Your task to perform on an android device: turn off javascript in the chrome app Image 0: 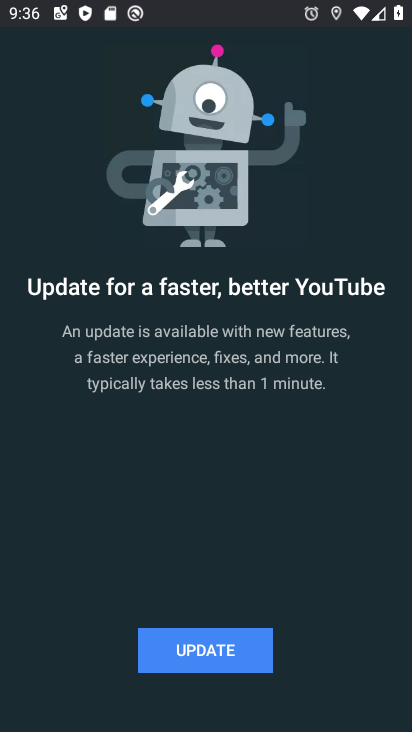
Step 0: press home button
Your task to perform on an android device: turn off javascript in the chrome app Image 1: 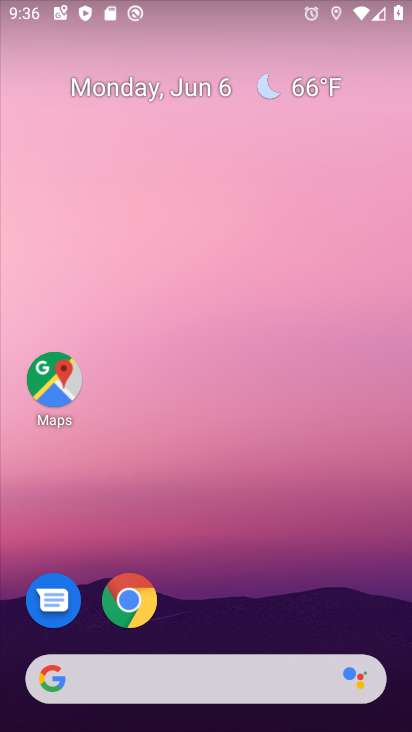
Step 1: click (130, 602)
Your task to perform on an android device: turn off javascript in the chrome app Image 2: 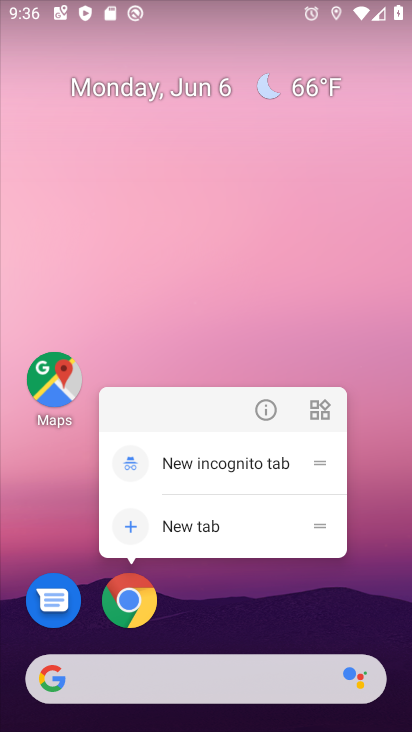
Step 2: click (130, 602)
Your task to perform on an android device: turn off javascript in the chrome app Image 3: 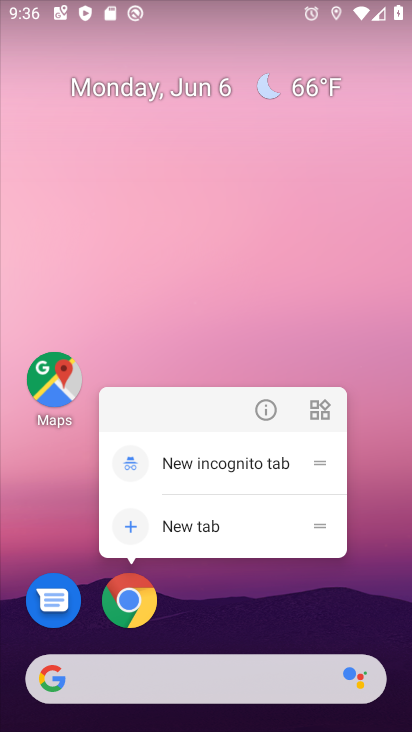
Step 3: click (130, 602)
Your task to perform on an android device: turn off javascript in the chrome app Image 4: 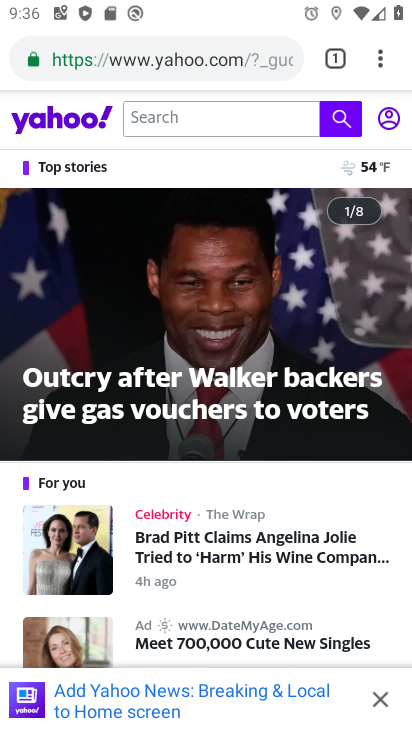
Step 4: click (386, 65)
Your task to perform on an android device: turn off javascript in the chrome app Image 5: 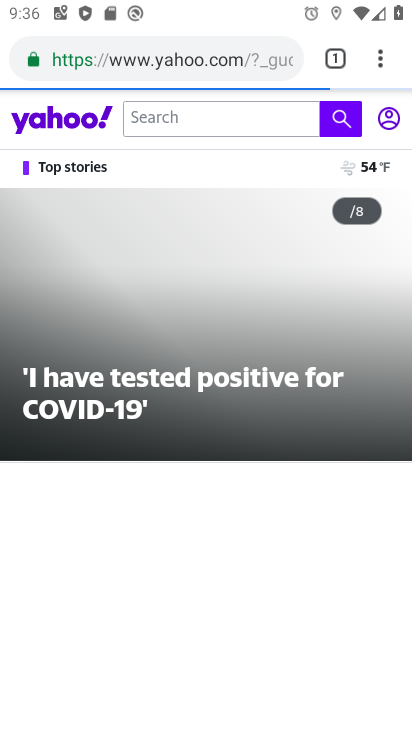
Step 5: click (378, 51)
Your task to perform on an android device: turn off javascript in the chrome app Image 6: 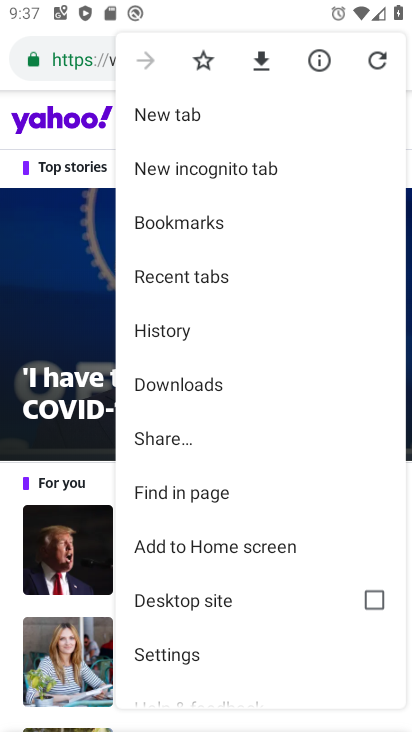
Step 6: click (186, 657)
Your task to perform on an android device: turn off javascript in the chrome app Image 7: 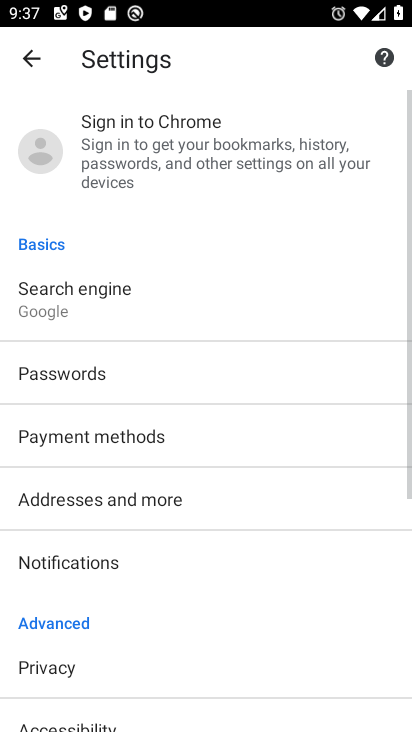
Step 7: drag from (3, 491) to (83, 253)
Your task to perform on an android device: turn off javascript in the chrome app Image 8: 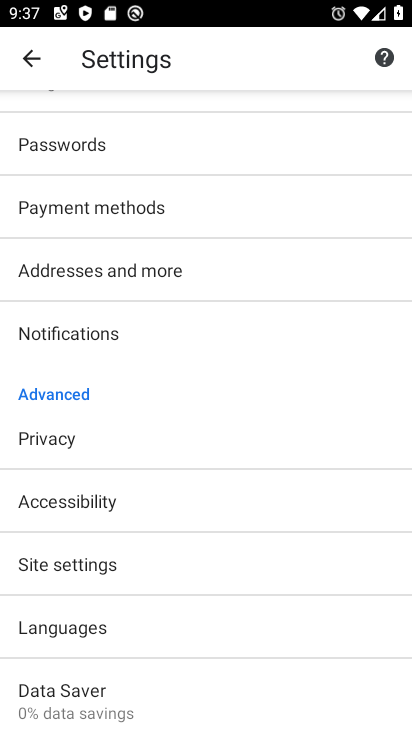
Step 8: click (142, 573)
Your task to perform on an android device: turn off javascript in the chrome app Image 9: 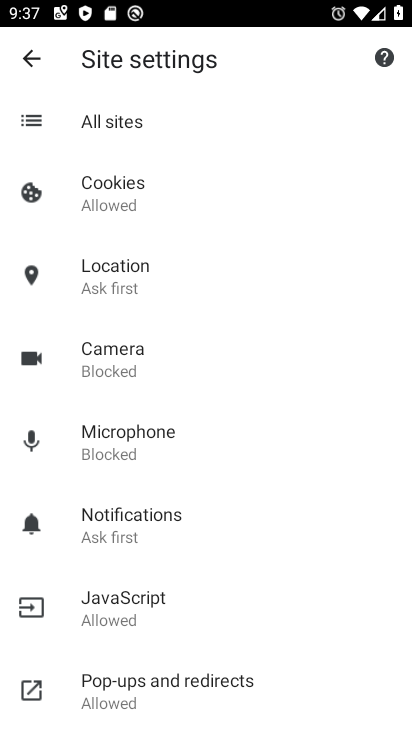
Step 9: click (125, 593)
Your task to perform on an android device: turn off javascript in the chrome app Image 10: 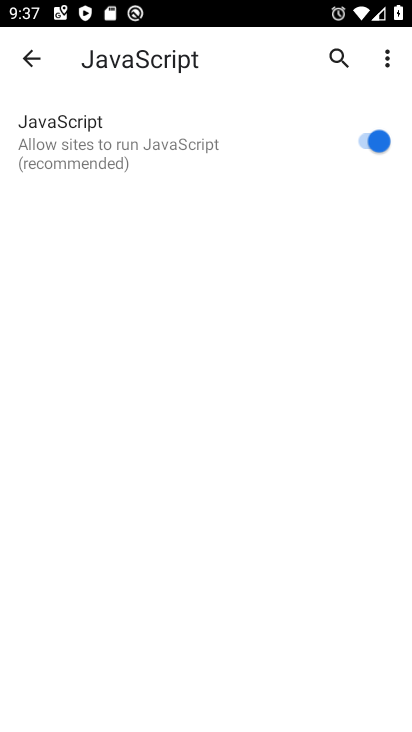
Step 10: click (385, 141)
Your task to perform on an android device: turn off javascript in the chrome app Image 11: 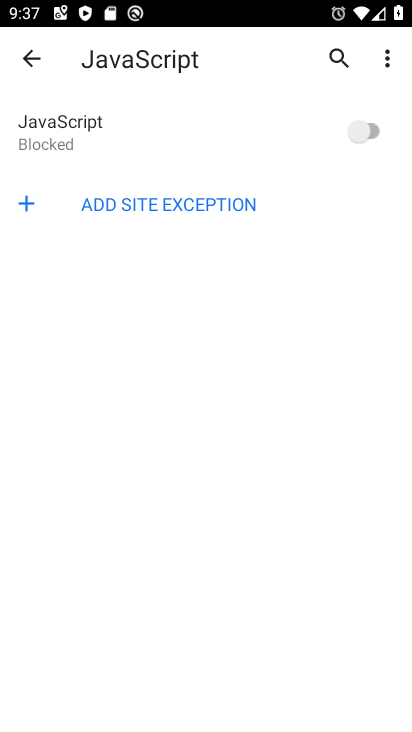
Step 11: task complete